Your task to perform on an android device: turn on the 12-hour format for clock Image 0: 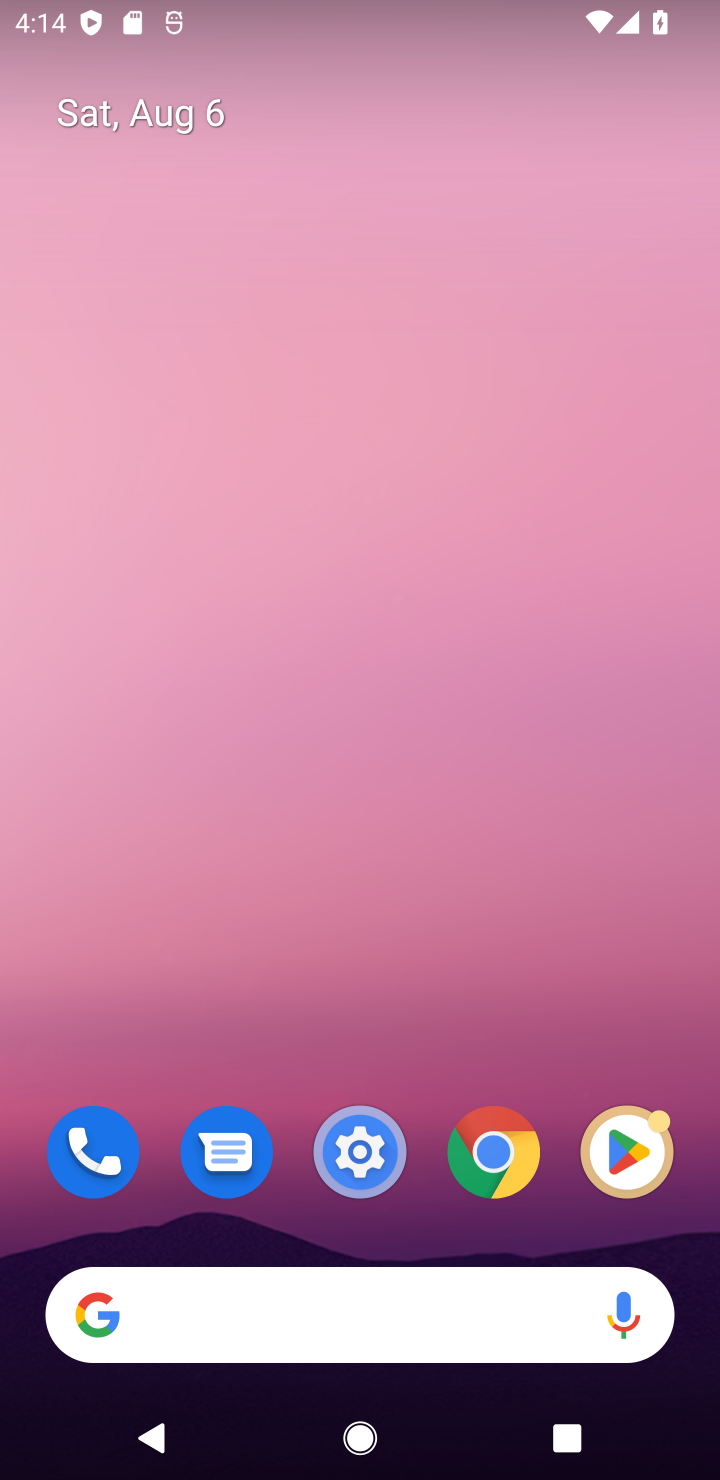
Step 0: drag from (436, 1048) to (526, 62)
Your task to perform on an android device: turn on the 12-hour format for clock Image 1: 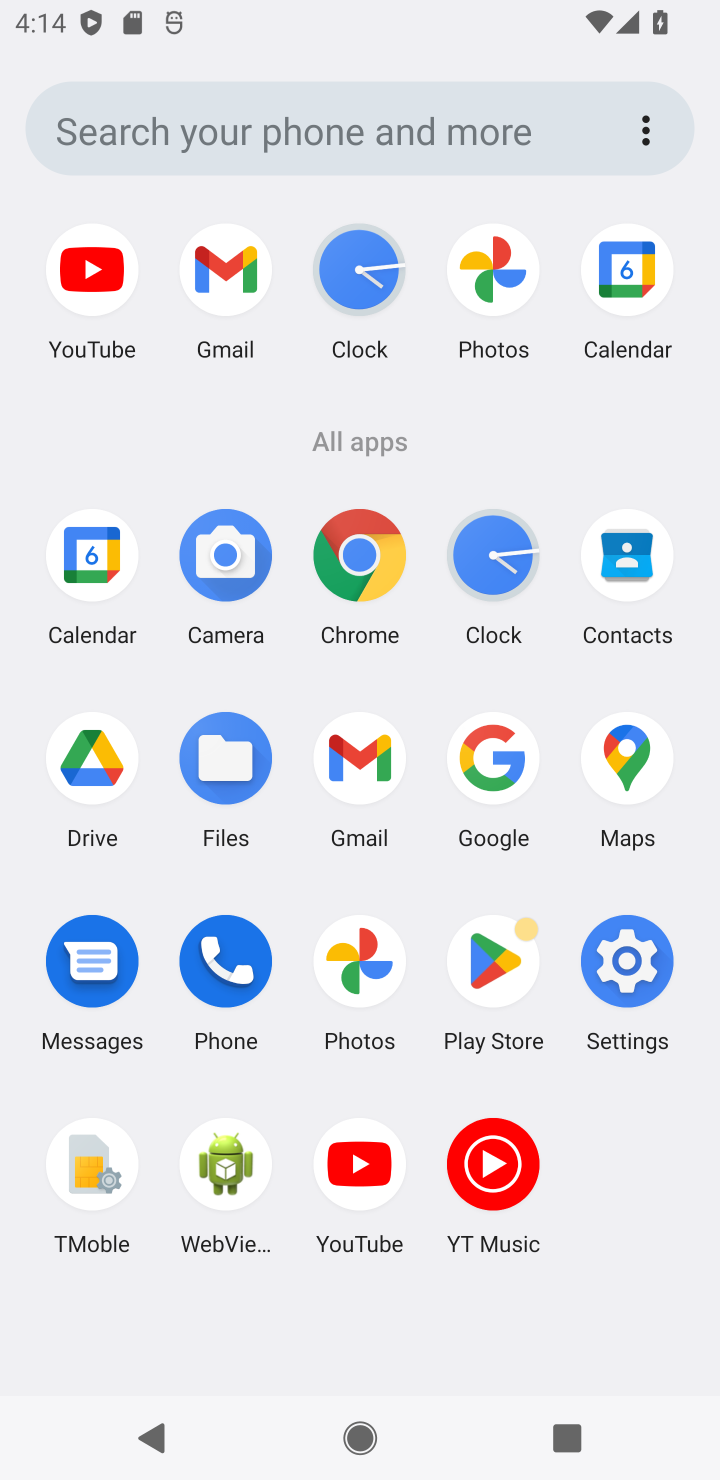
Step 1: click (498, 549)
Your task to perform on an android device: turn on the 12-hour format for clock Image 2: 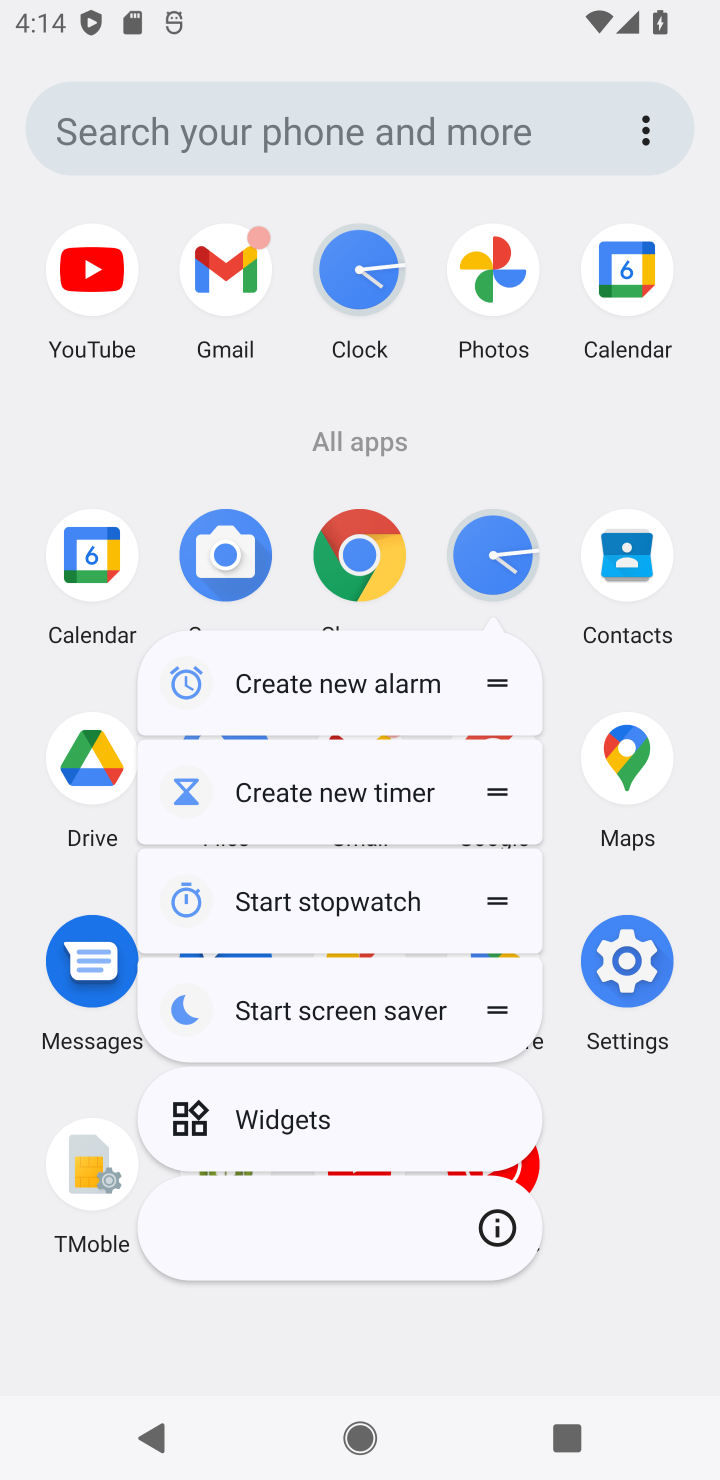
Step 2: click (498, 549)
Your task to perform on an android device: turn on the 12-hour format for clock Image 3: 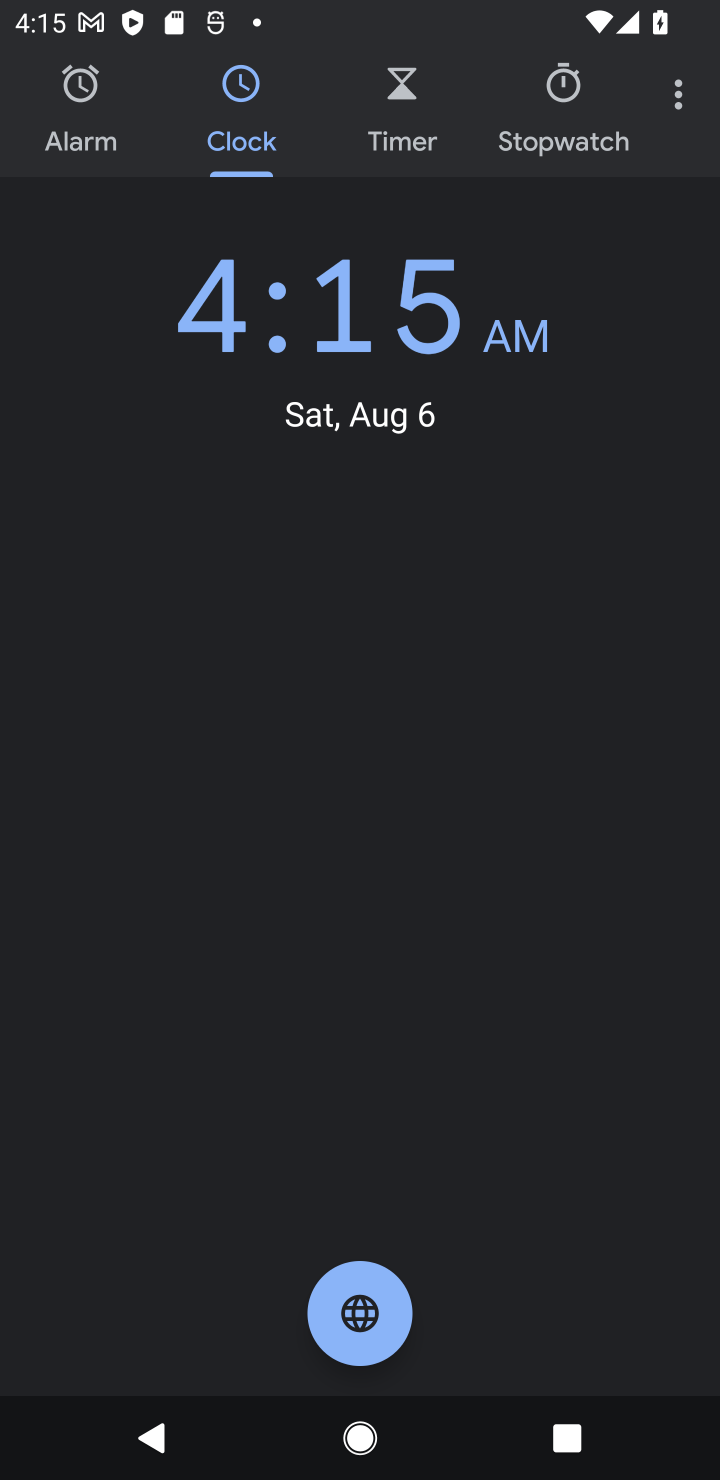
Step 3: click (670, 88)
Your task to perform on an android device: turn on the 12-hour format for clock Image 4: 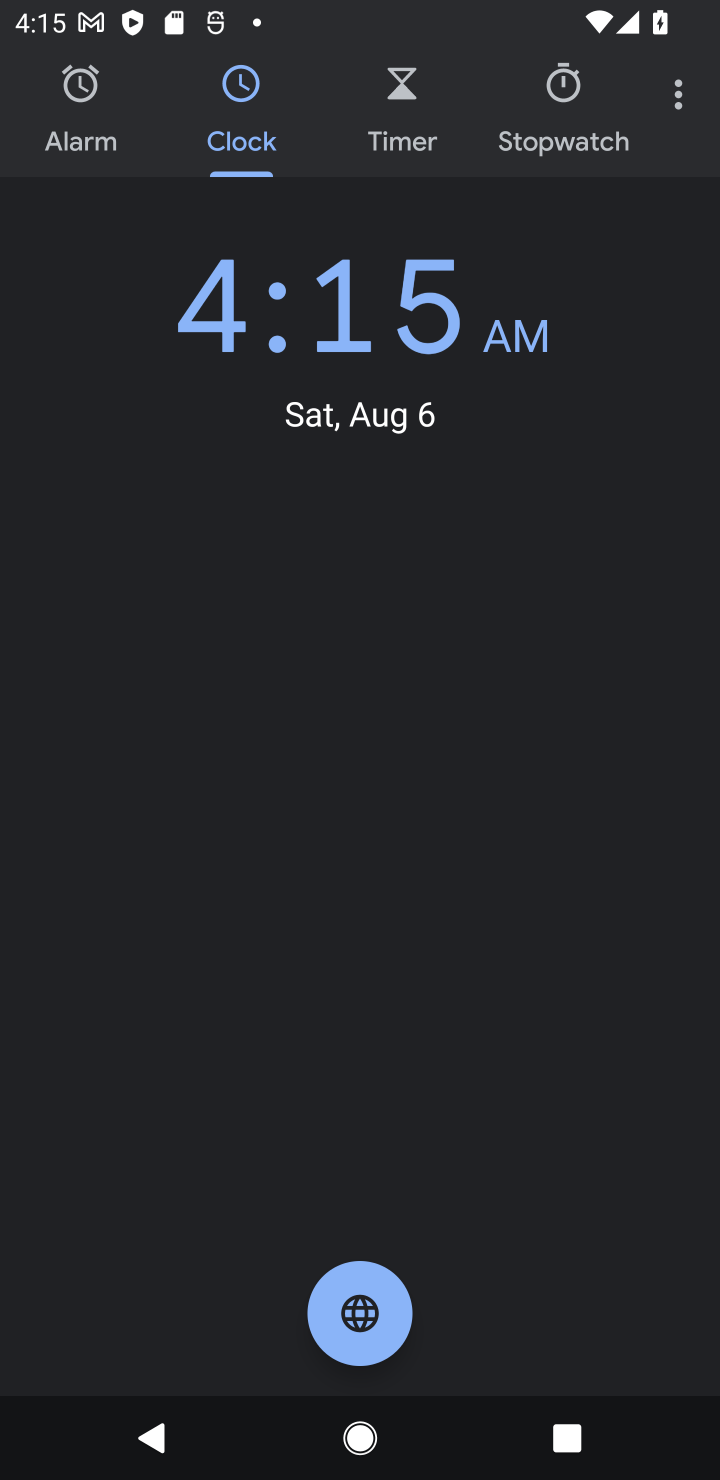
Step 4: click (675, 86)
Your task to perform on an android device: turn on the 12-hour format for clock Image 5: 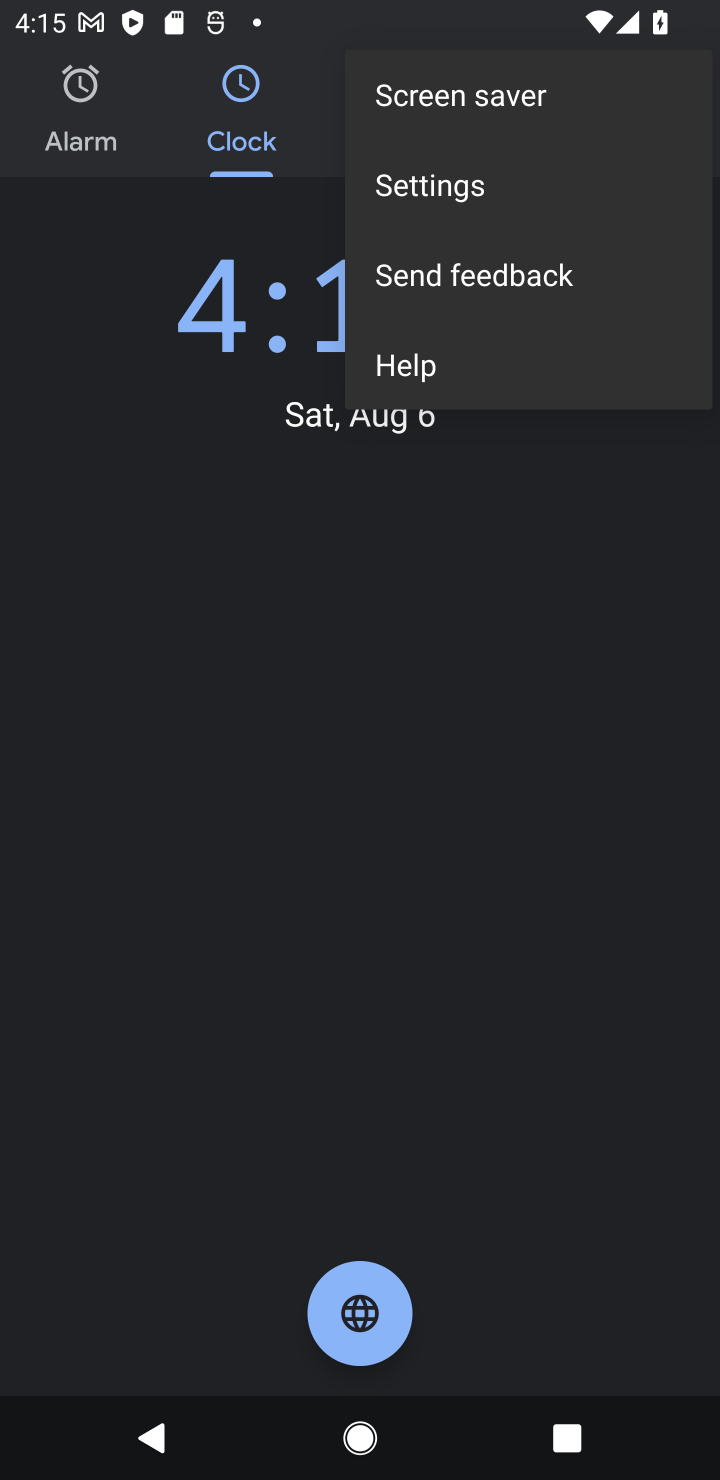
Step 5: click (429, 200)
Your task to perform on an android device: turn on the 12-hour format for clock Image 6: 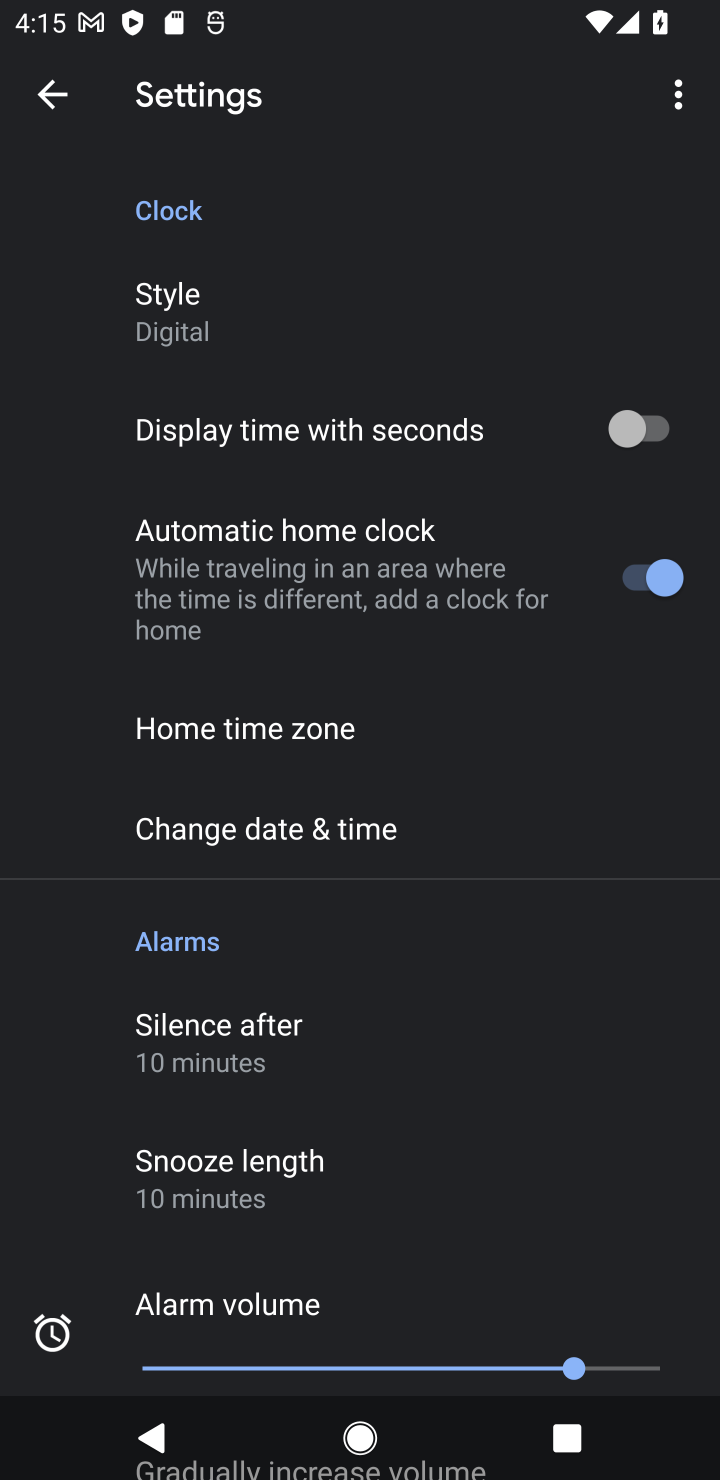
Step 6: click (317, 825)
Your task to perform on an android device: turn on the 12-hour format for clock Image 7: 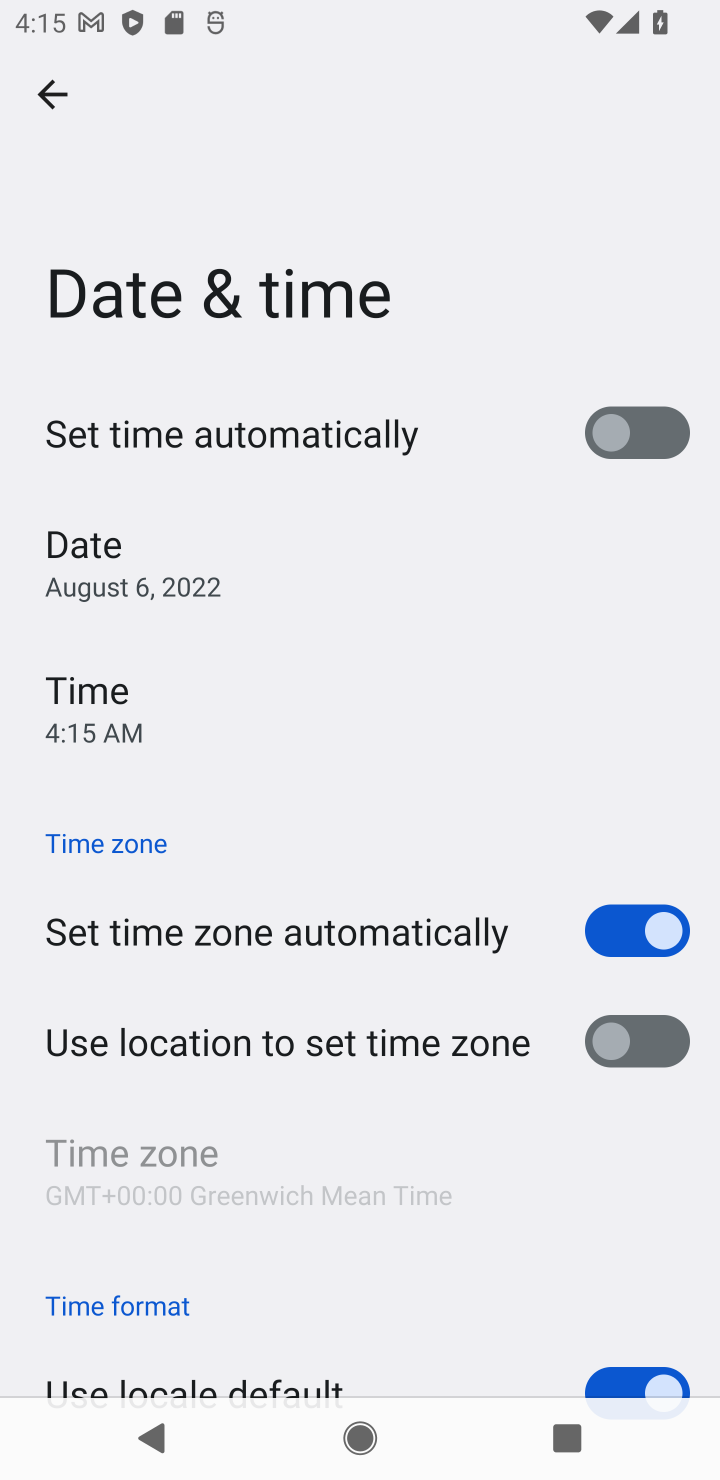
Step 7: task complete